Your task to perform on an android device: What's the weather going to be this weekend? Image 0: 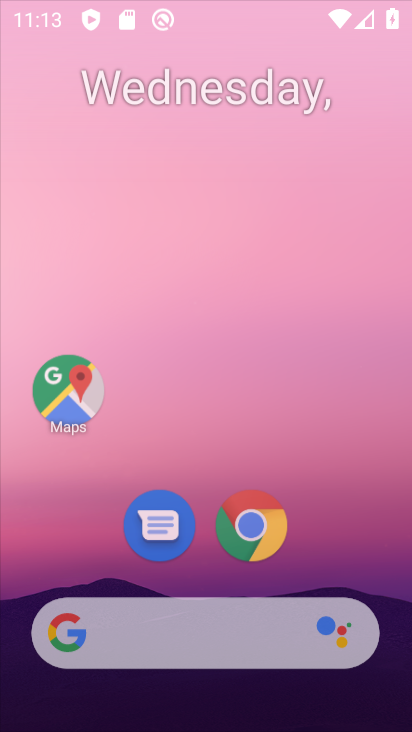
Step 0: click (304, 35)
Your task to perform on an android device: What's the weather going to be this weekend? Image 1: 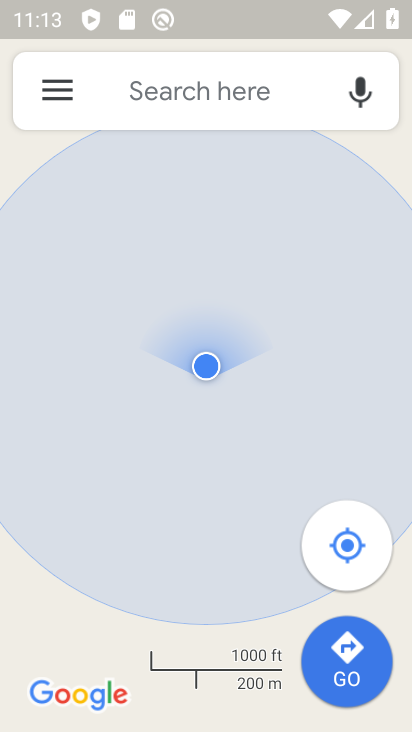
Step 1: press home button
Your task to perform on an android device: What's the weather going to be this weekend? Image 2: 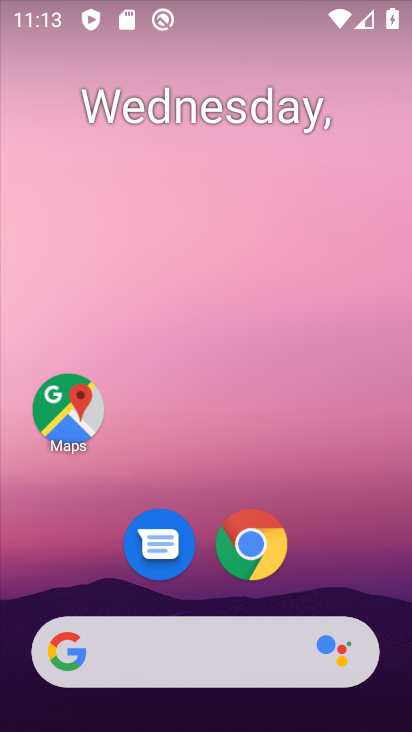
Step 2: drag from (362, 523) to (340, 114)
Your task to perform on an android device: What's the weather going to be this weekend? Image 3: 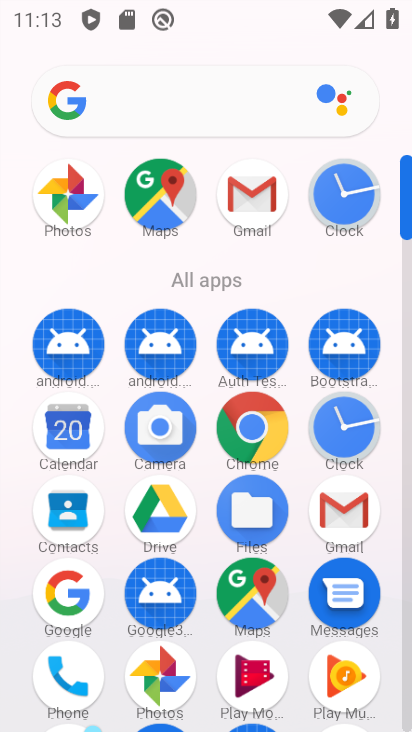
Step 3: click (59, 423)
Your task to perform on an android device: What's the weather going to be this weekend? Image 4: 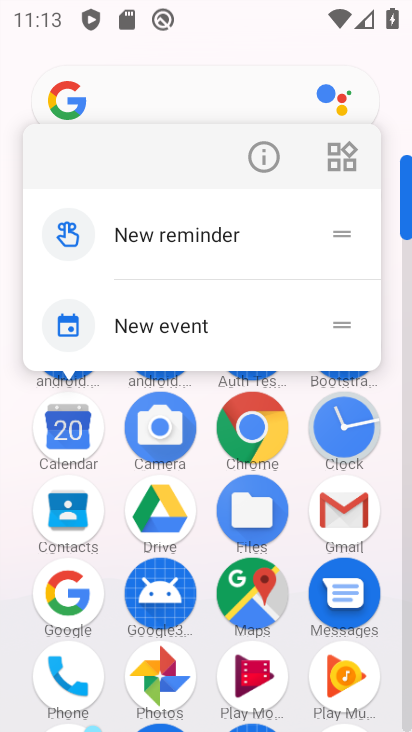
Step 4: click (398, 471)
Your task to perform on an android device: What's the weather going to be this weekend? Image 5: 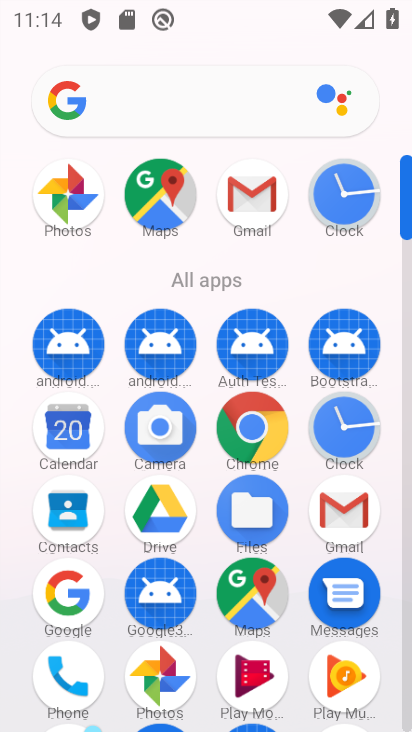
Step 5: click (387, 470)
Your task to perform on an android device: What's the weather going to be this weekend? Image 6: 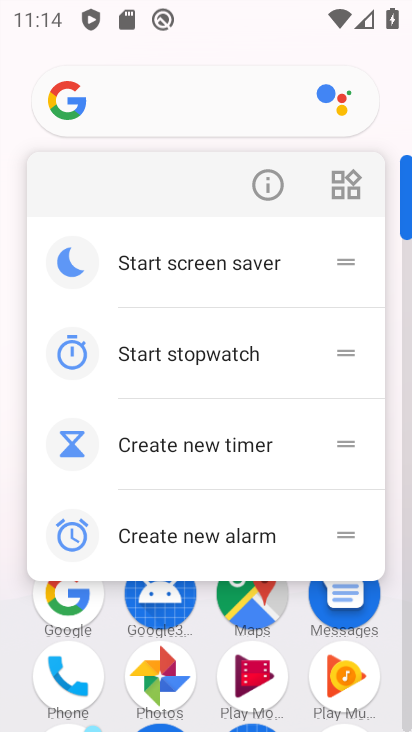
Step 6: click (217, 62)
Your task to perform on an android device: What's the weather going to be this weekend? Image 7: 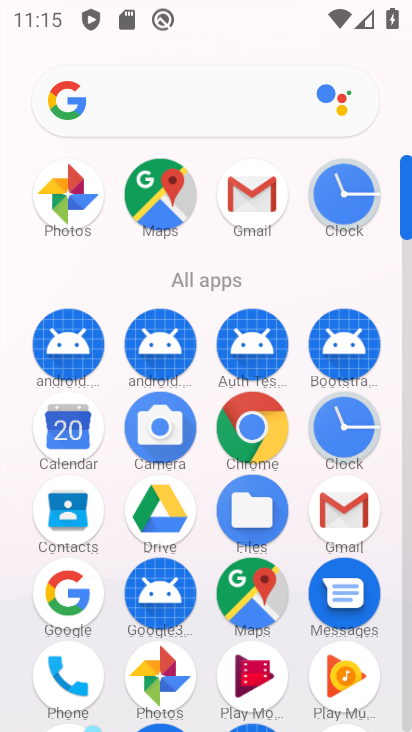
Step 7: drag from (80, 729) to (408, 720)
Your task to perform on an android device: What's the weather going to be this weekend? Image 8: 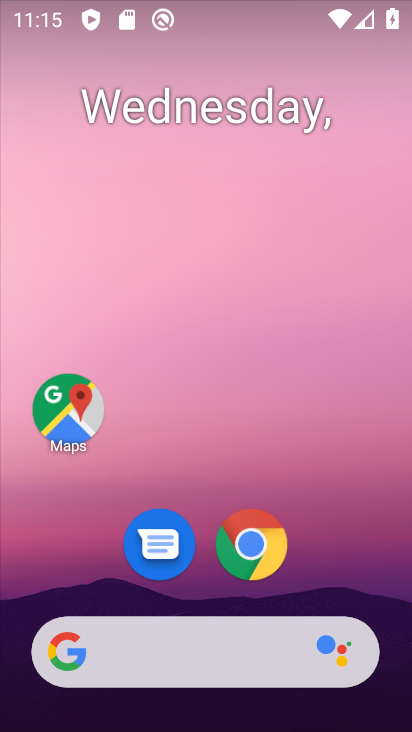
Step 8: drag from (308, 532) to (327, 700)
Your task to perform on an android device: What's the weather going to be this weekend? Image 9: 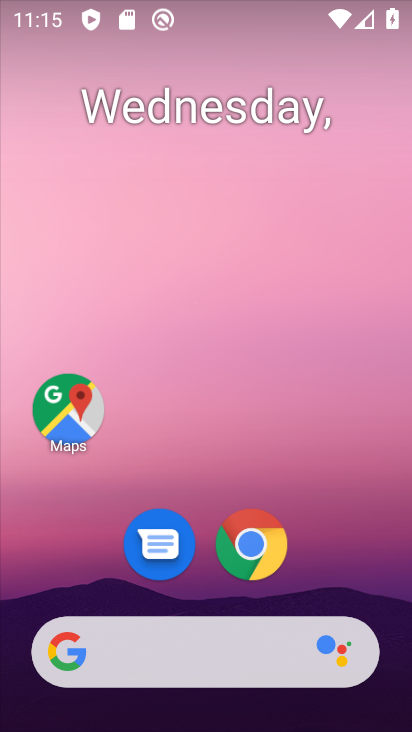
Step 9: click (244, 538)
Your task to perform on an android device: What's the weather going to be this weekend? Image 10: 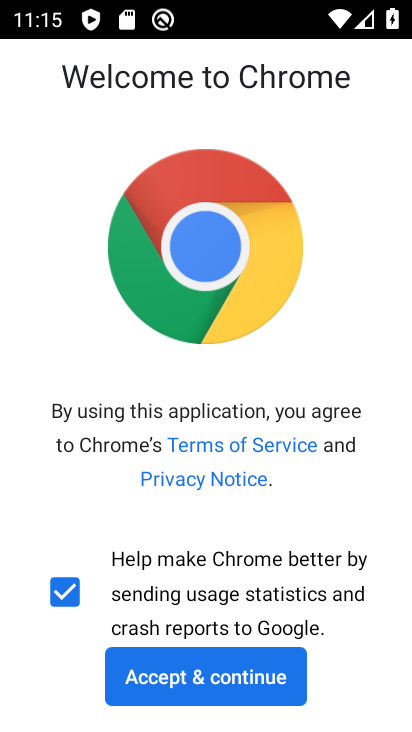
Step 10: click (157, 674)
Your task to perform on an android device: What's the weather going to be this weekend? Image 11: 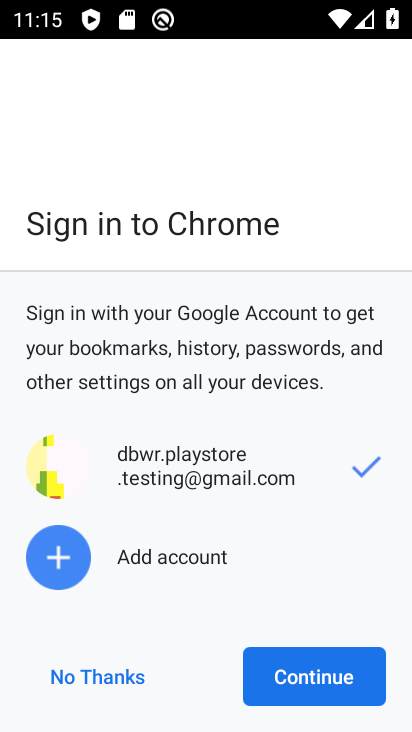
Step 11: click (277, 666)
Your task to perform on an android device: What's the weather going to be this weekend? Image 12: 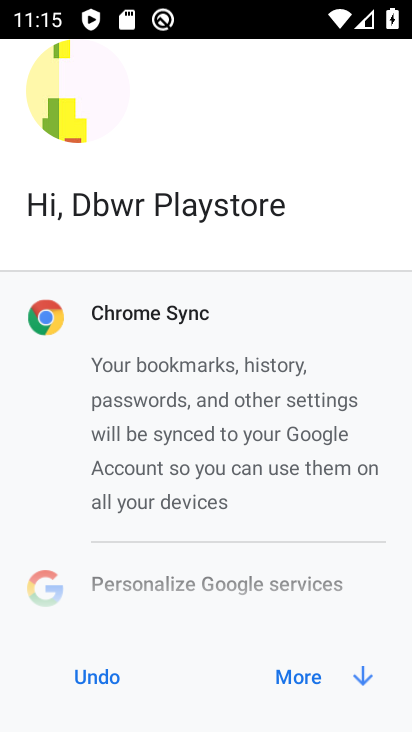
Step 12: click (277, 666)
Your task to perform on an android device: What's the weather going to be this weekend? Image 13: 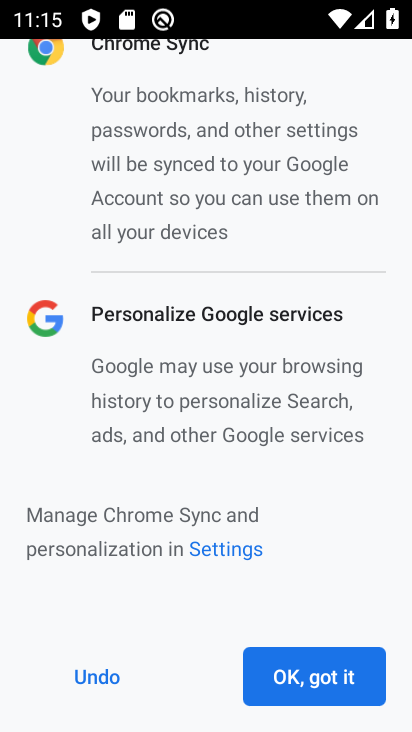
Step 13: click (277, 666)
Your task to perform on an android device: What's the weather going to be this weekend? Image 14: 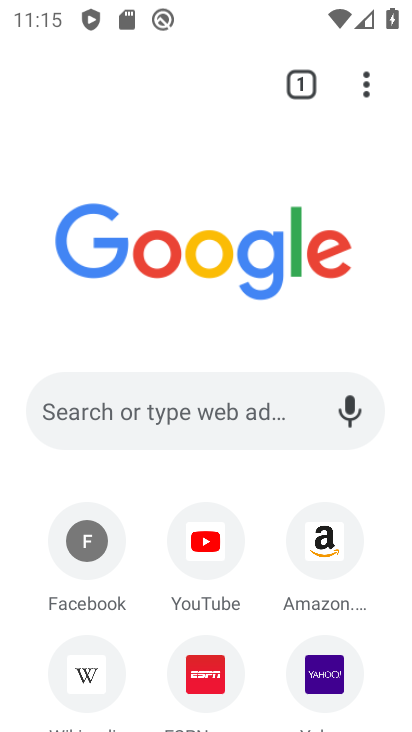
Step 14: click (367, 90)
Your task to perform on an android device: What's the weather going to be this weekend? Image 15: 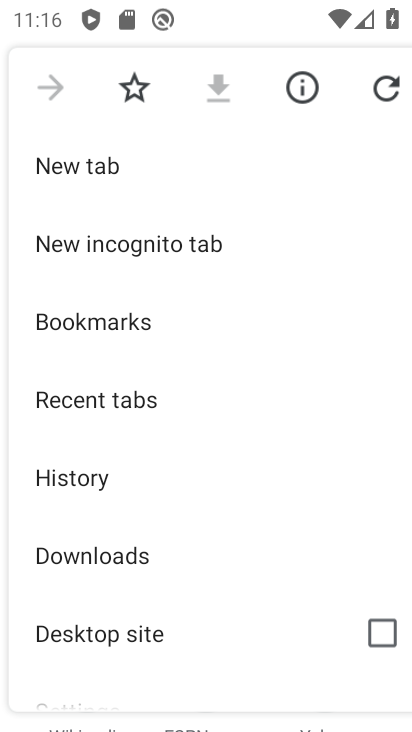
Step 15: drag from (308, 619) to (201, 189)
Your task to perform on an android device: What's the weather going to be this weekend? Image 16: 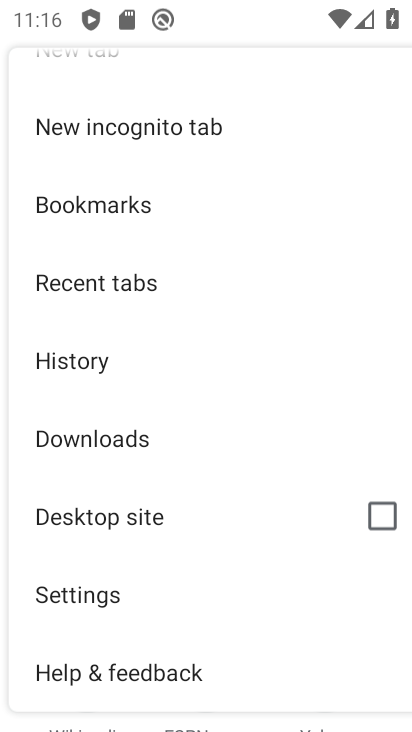
Step 16: drag from (25, 575) to (409, 543)
Your task to perform on an android device: What's the weather going to be this weekend? Image 17: 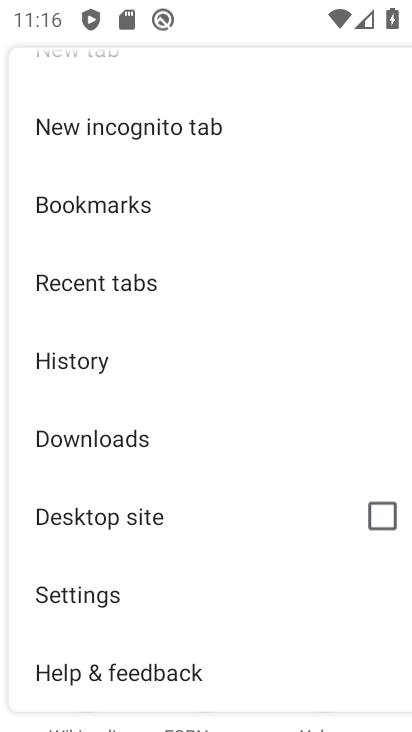
Step 17: drag from (18, 441) to (410, 416)
Your task to perform on an android device: What's the weather going to be this weekend? Image 18: 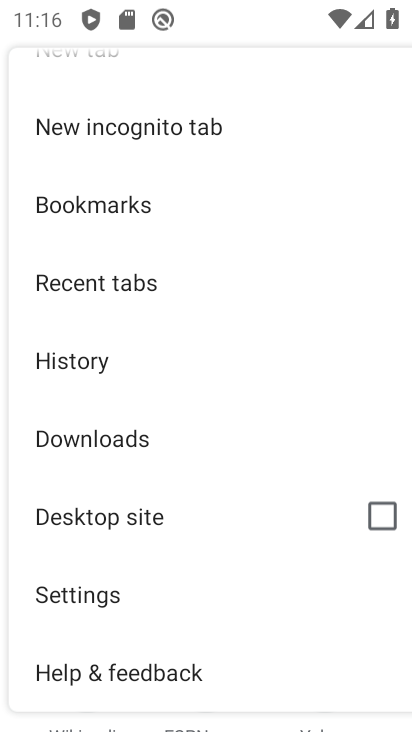
Step 18: drag from (222, 390) to (232, 725)
Your task to perform on an android device: What's the weather going to be this weekend? Image 19: 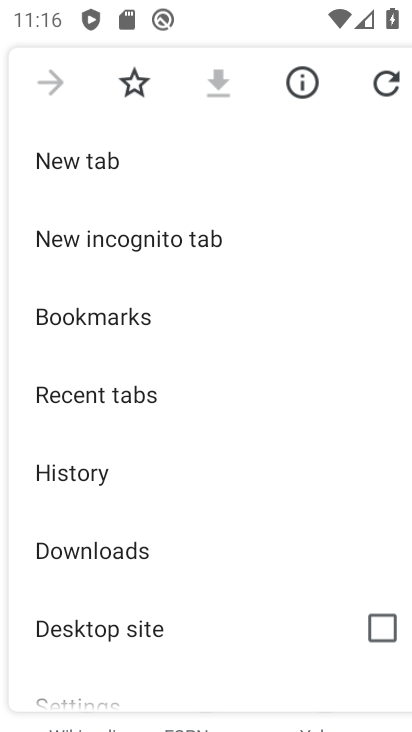
Step 19: click (264, 28)
Your task to perform on an android device: What's the weather going to be this weekend? Image 20: 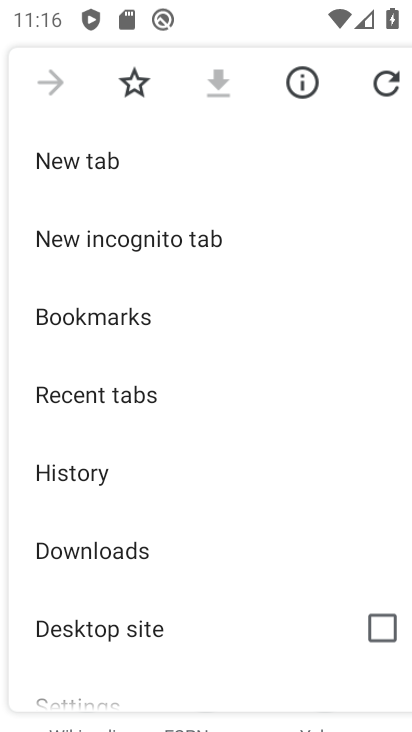
Step 20: click (264, 28)
Your task to perform on an android device: What's the weather going to be this weekend? Image 21: 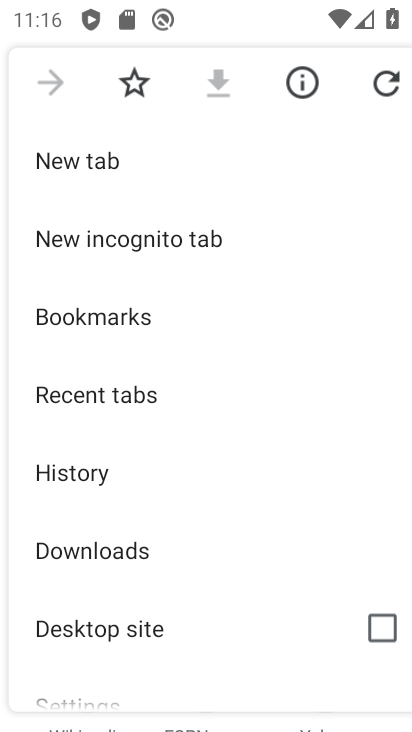
Step 21: press back button
Your task to perform on an android device: What's the weather going to be this weekend? Image 22: 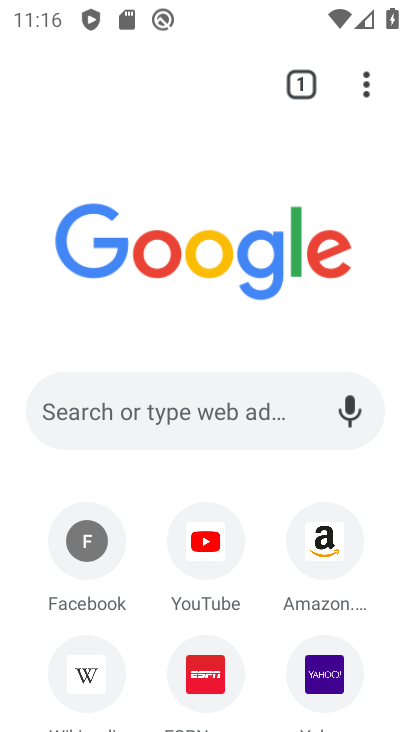
Step 22: click (258, 411)
Your task to perform on an android device: What's the weather going to be this weekend? Image 23: 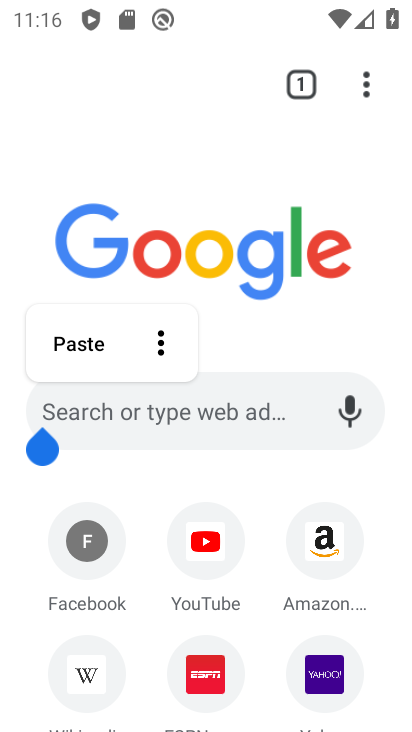
Step 23: click (233, 399)
Your task to perform on an android device: What's the weather going to be this weekend? Image 24: 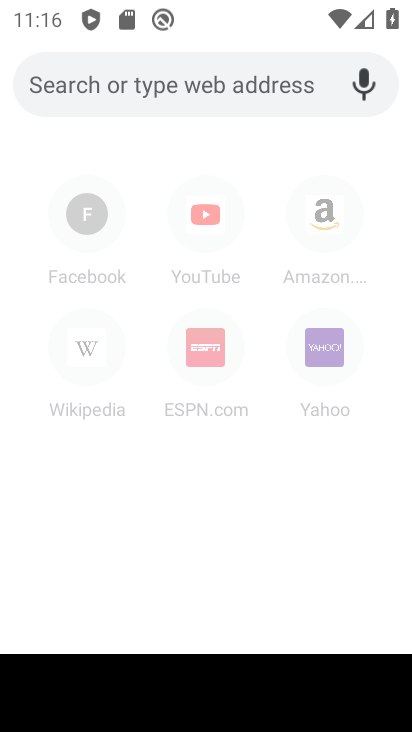
Step 24: click (257, 82)
Your task to perform on an android device: What's the weather going to be this weekend? Image 25: 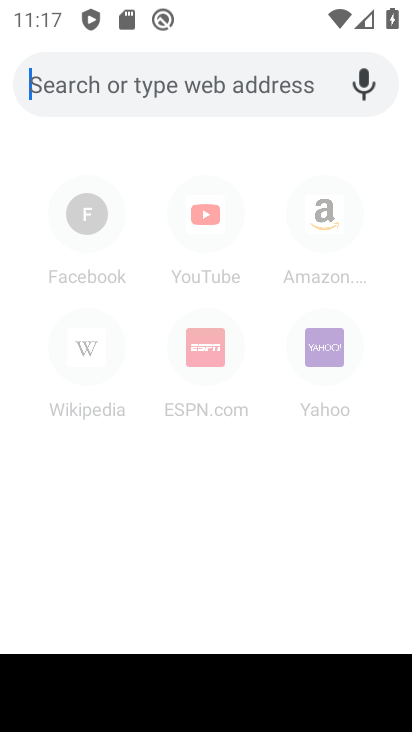
Step 25: type "What's the weather going to be this weekend?"
Your task to perform on an android device: What's the weather going to be this weekend? Image 26: 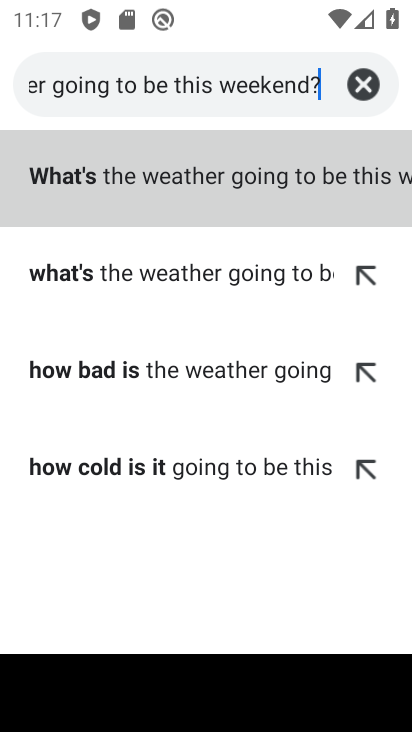
Step 26: click (154, 178)
Your task to perform on an android device: What's the weather going to be this weekend? Image 27: 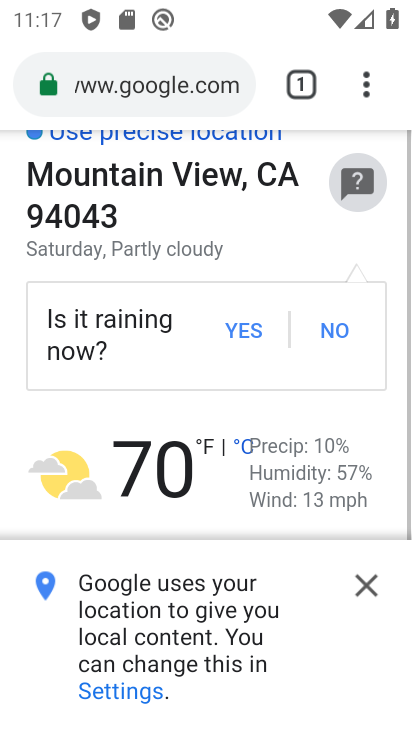
Step 27: task complete